Your task to perform on an android device: change alarm snooze length Image 0: 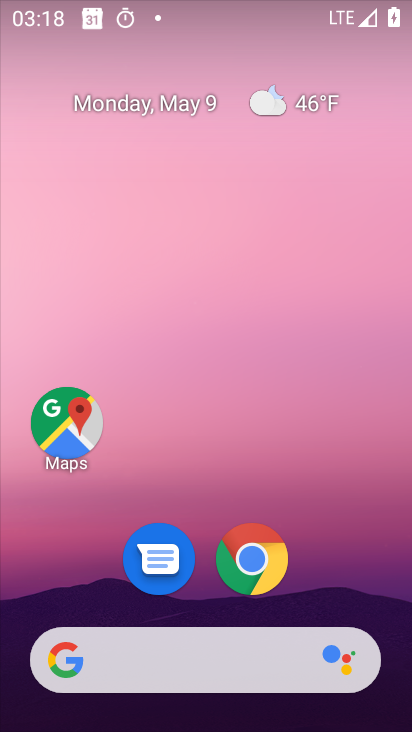
Step 0: drag from (336, 535) to (345, 161)
Your task to perform on an android device: change alarm snooze length Image 1: 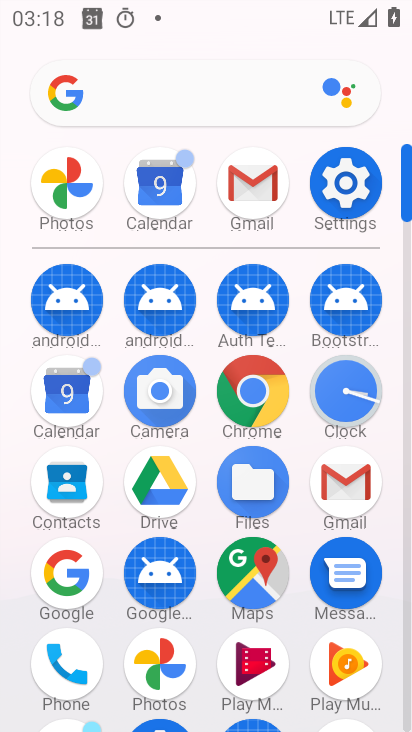
Step 1: click (340, 391)
Your task to perform on an android device: change alarm snooze length Image 2: 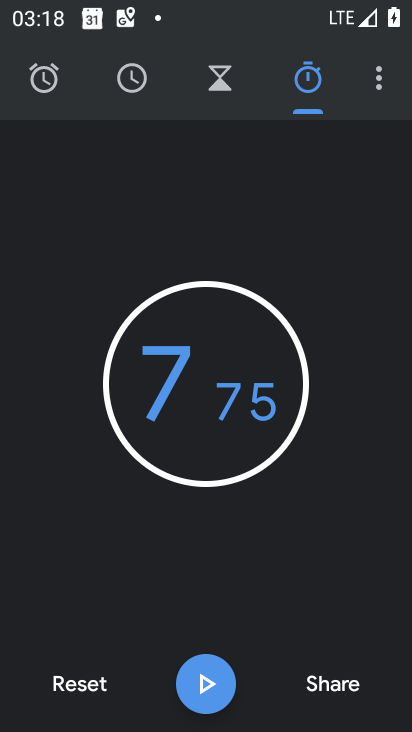
Step 2: click (377, 86)
Your task to perform on an android device: change alarm snooze length Image 3: 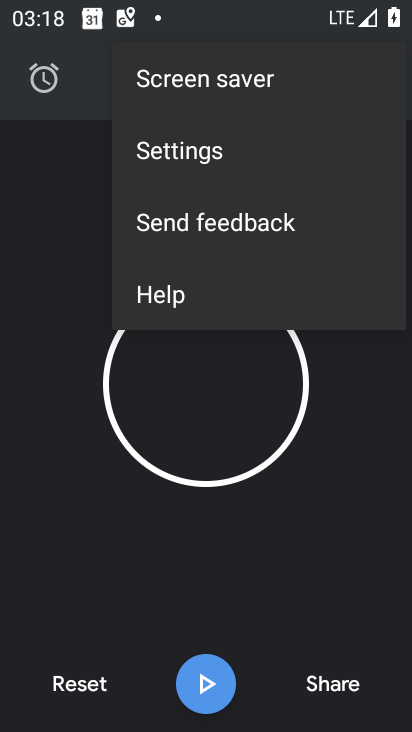
Step 3: click (249, 152)
Your task to perform on an android device: change alarm snooze length Image 4: 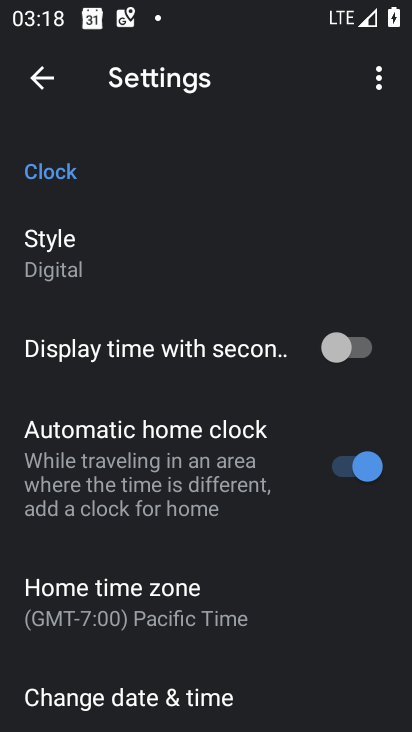
Step 4: drag from (140, 388) to (164, 179)
Your task to perform on an android device: change alarm snooze length Image 5: 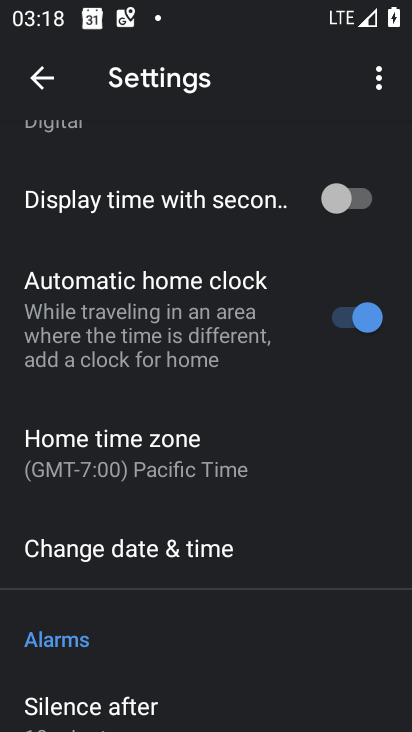
Step 5: drag from (141, 520) to (160, 259)
Your task to perform on an android device: change alarm snooze length Image 6: 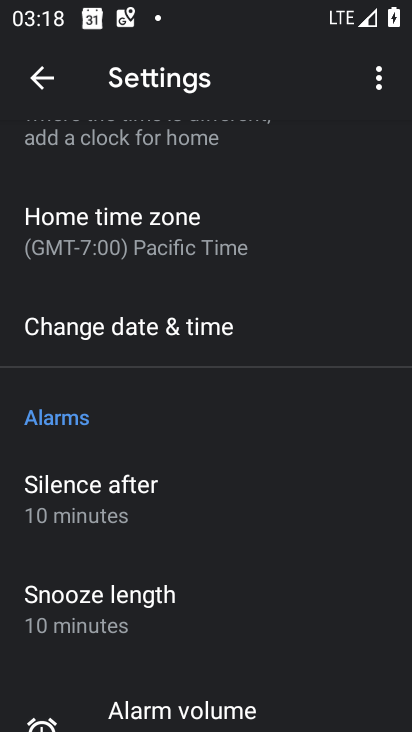
Step 6: click (110, 612)
Your task to perform on an android device: change alarm snooze length Image 7: 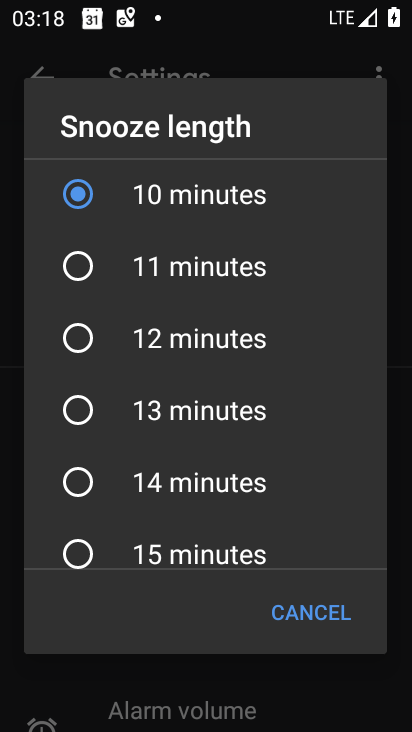
Step 7: click (179, 261)
Your task to perform on an android device: change alarm snooze length Image 8: 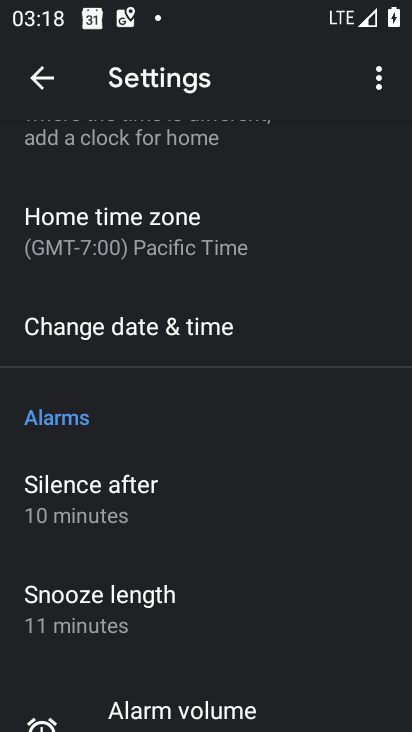
Step 8: task complete